Your task to perform on an android device: create a new album in the google photos Image 0: 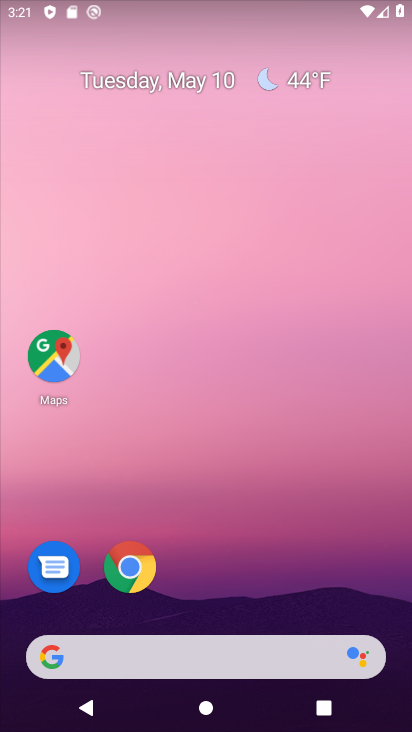
Step 0: drag from (245, 577) to (237, 90)
Your task to perform on an android device: create a new album in the google photos Image 1: 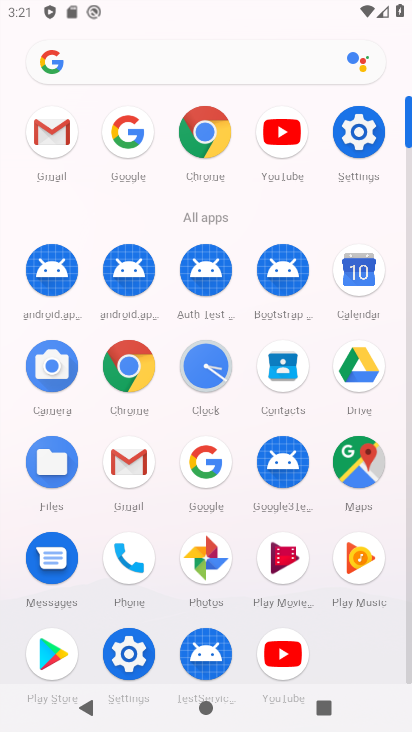
Step 1: click (207, 561)
Your task to perform on an android device: create a new album in the google photos Image 2: 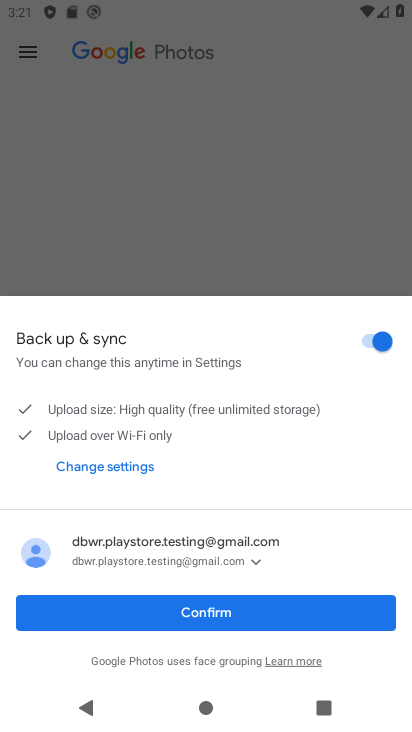
Step 2: click (211, 610)
Your task to perform on an android device: create a new album in the google photos Image 3: 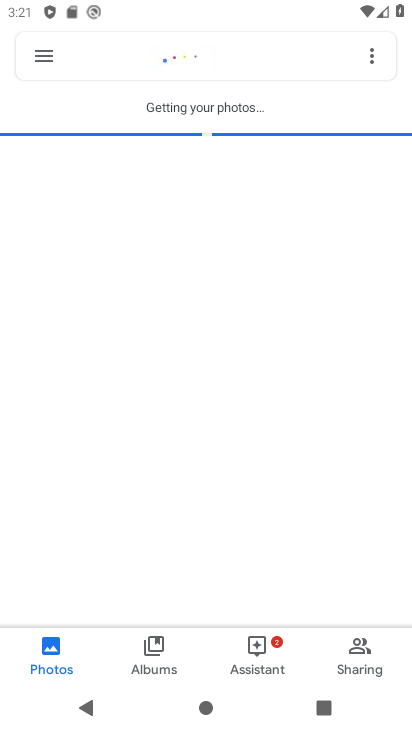
Step 3: click (372, 54)
Your task to perform on an android device: create a new album in the google photos Image 4: 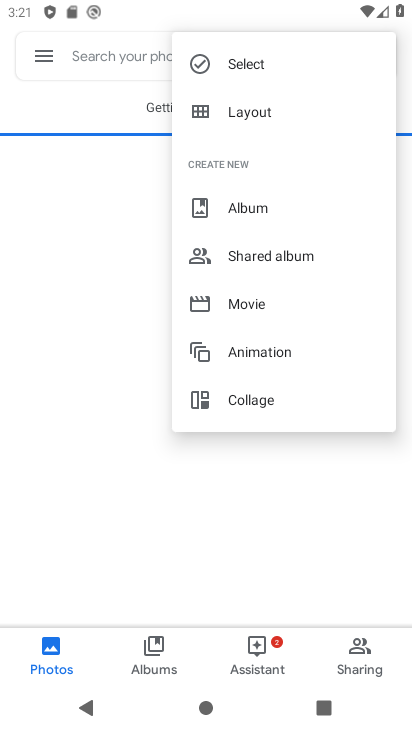
Step 4: click (260, 202)
Your task to perform on an android device: create a new album in the google photos Image 5: 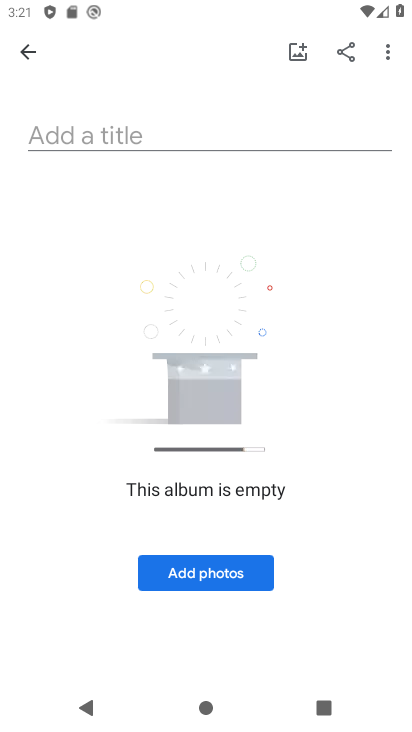
Step 5: click (189, 130)
Your task to perform on an android device: create a new album in the google photos Image 6: 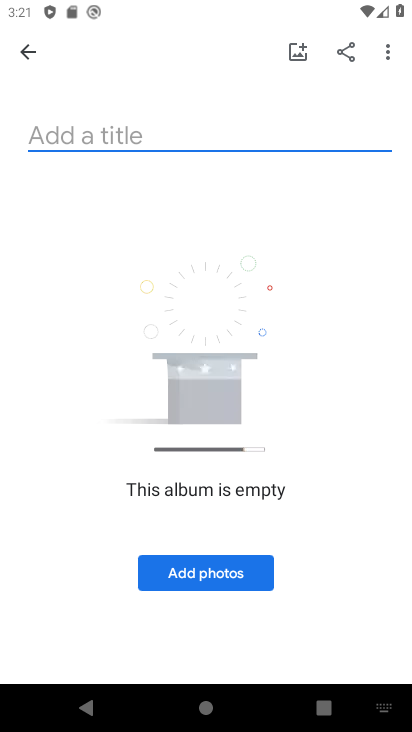
Step 6: type "Vegas"
Your task to perform on an android device: create a new album in the google photos Image 7: 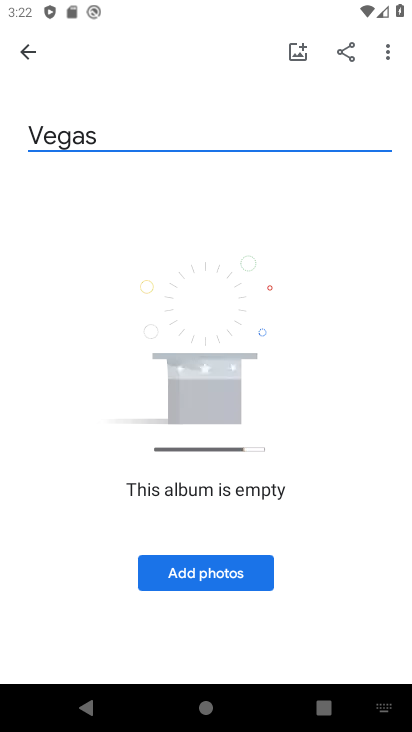
Step 7: click (203, 580)
Your task to perform on an android device: create a new album in the google photos Image 8: 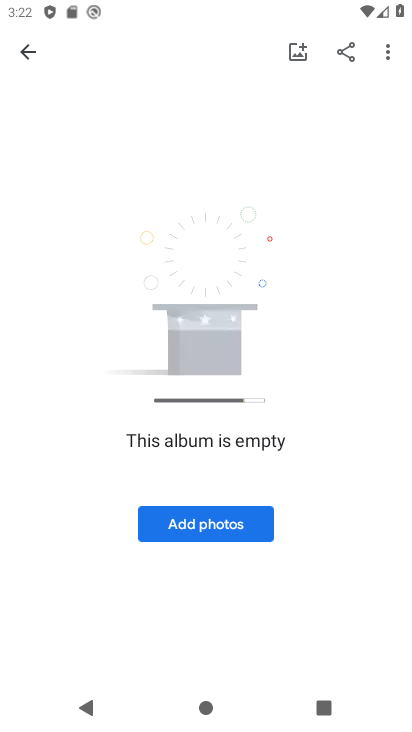
Step 8: click (218, 525)
Your task to perform on an android device: create a new album in the google photos Image 9: 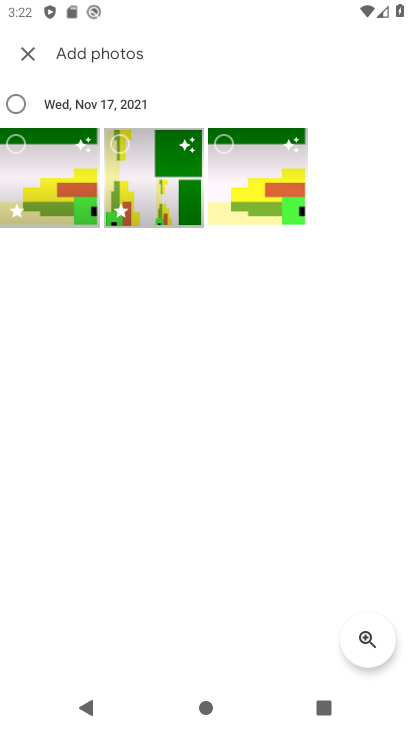
Step 9: click (14, 103)
Your task to perform on an android device: create a new album in the google photos Image 10: 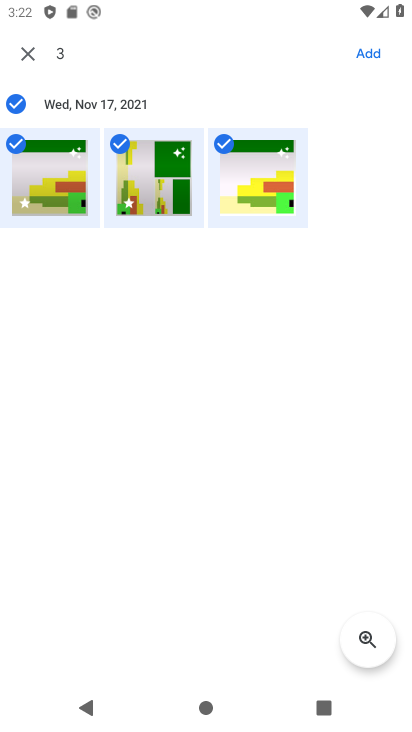
Step 10: click (377, 54)
Your task to perform on an android device: create a new album in the google photos Image 11: 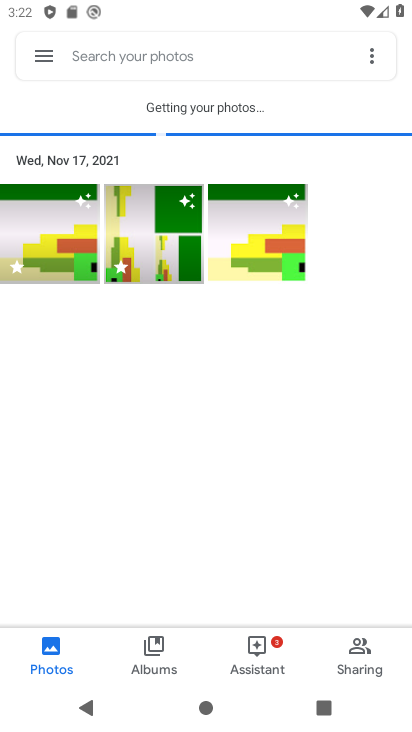
Step 11: task complete